Your task to perform on an android device: toggle pop-ups in chrome Image 0: 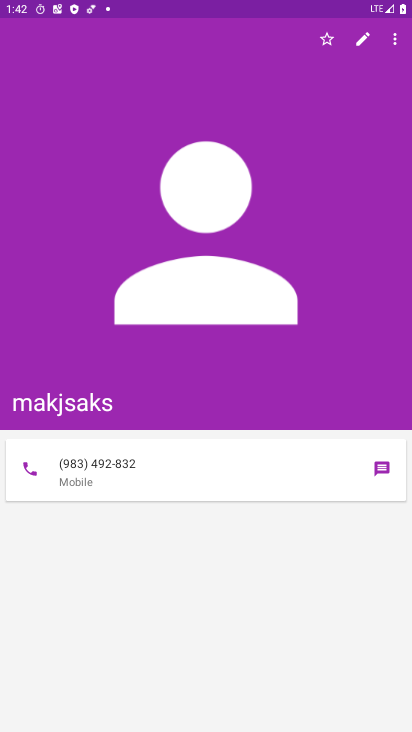
Step 0: press home button
Your task to perform on an android device: toggle pop-ups in chrome Image 1: 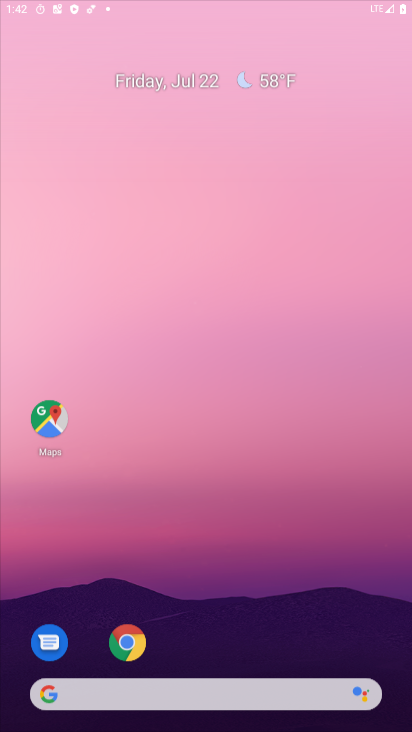
Step 1: drag from (202, 669) to (264, 186)
Your task to perform on an android device: toggle pop-ups in chrome Image 2: 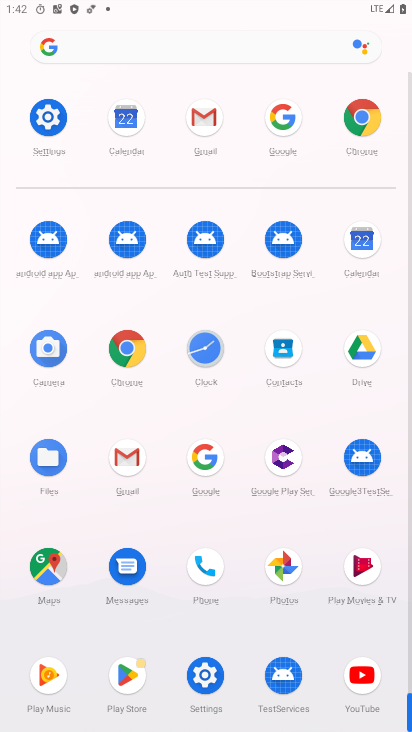
Step 2: click (121, 348)
Your task to perform on an android device: toggle pop-ups in chrome Image 3: 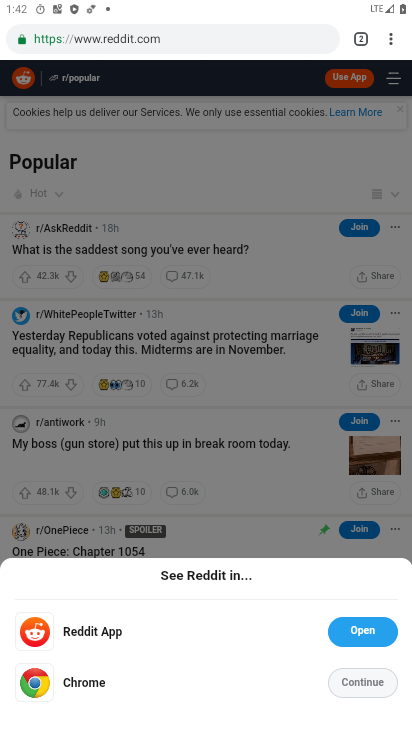
Step 3: drag from (202, 664) to (196, 345)
Your task to perform on an android device: toggle pop-ups in chrome Image 4: 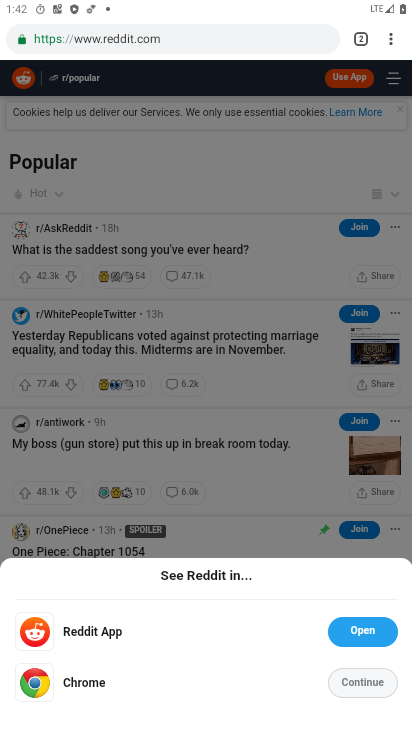
Step 4: click (210, 425)
Your task to perform on an android device: toggle pop-ups in chrome Image 5: 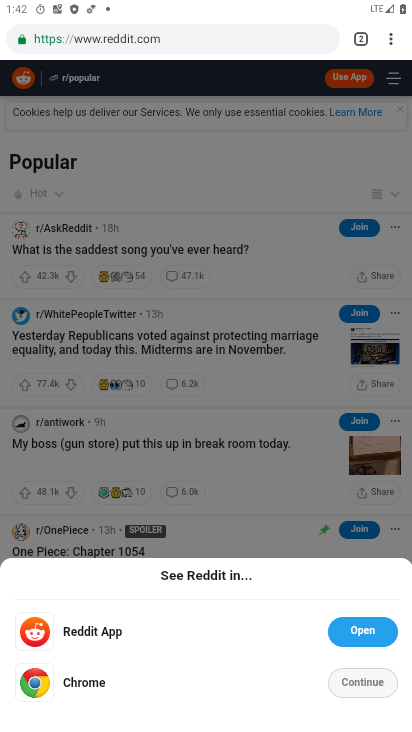
Step 5: drag from (391, 32) to (274, 518)
Your task to perform on an android device: toggle pop-ups in chrome Image 6: 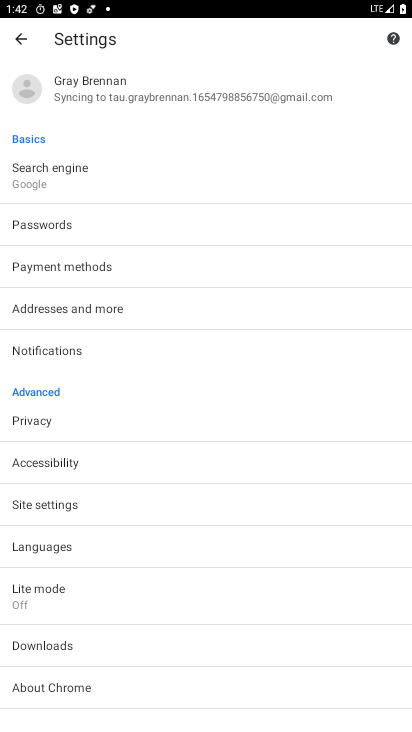
Step 6: drag from (181, 583) to (191, 220)
Your task to perform on an android device: toggle pop-ups in chrome Image 7: 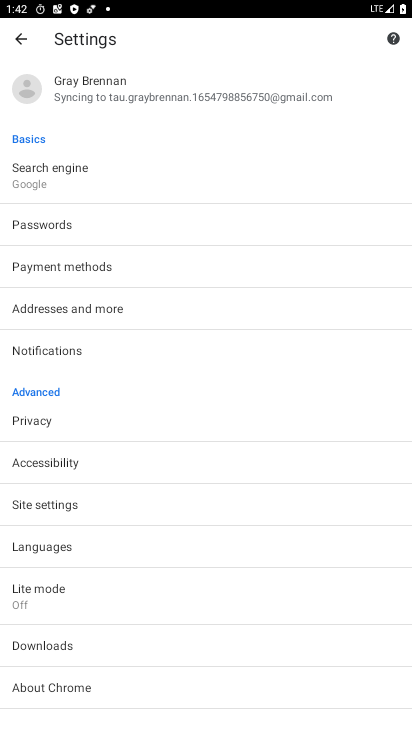
Step 7: click (128, 505)
Your task to perform on an android device: toggle pop-ups in chrome Image 8: 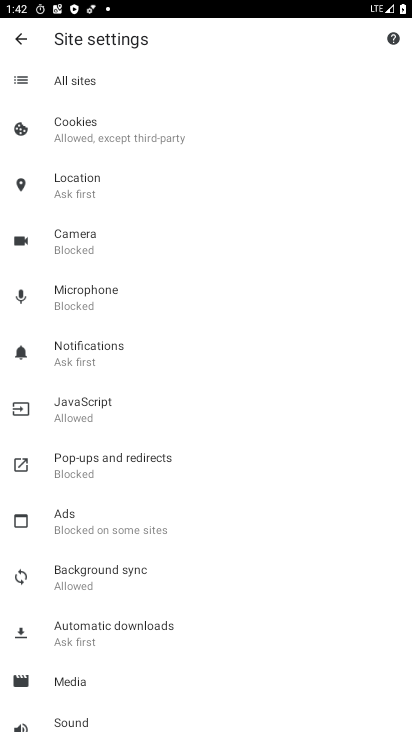
Step 8: click (142, 479)
Your task to perform on an android device: toggle pop-ups in chrome Image 9: 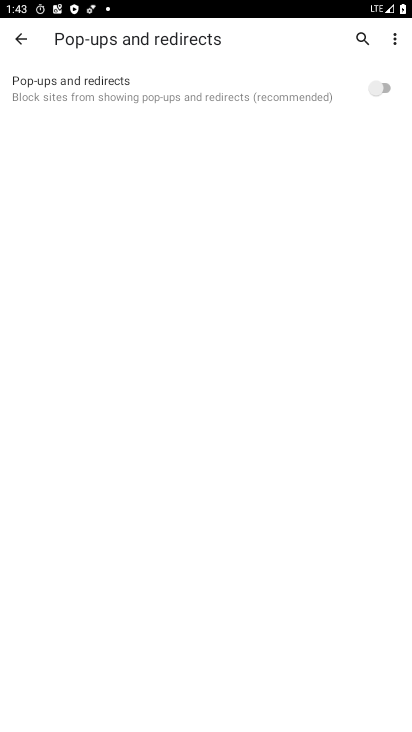
Step 9: drag from (259, 602) to (273, 354)
Your task to perform on an android device: toggle pop-ups in chrome Image 10: 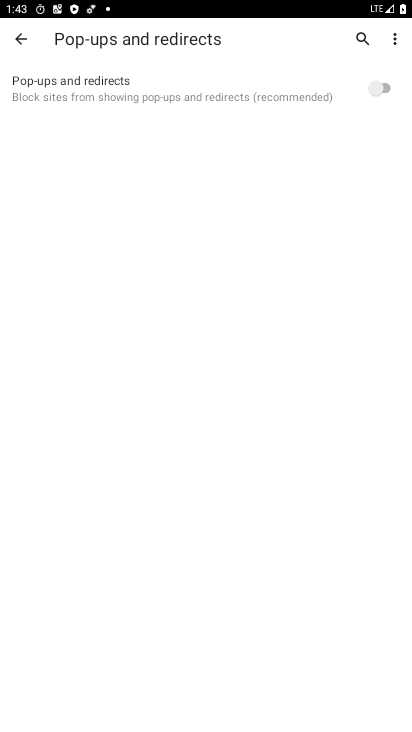
Step 10: click (190, 96)
Your task to perform on an android device: toggle pop-ups in chrome Image 11: 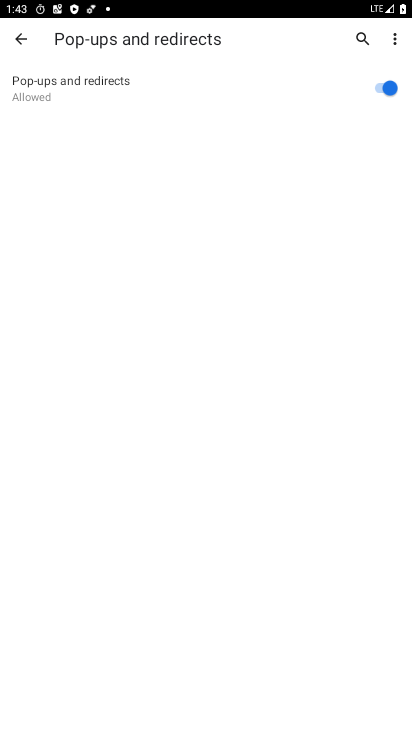
Step 11: task complete